Your task to perform on an android device: open wifi settings Image 0: 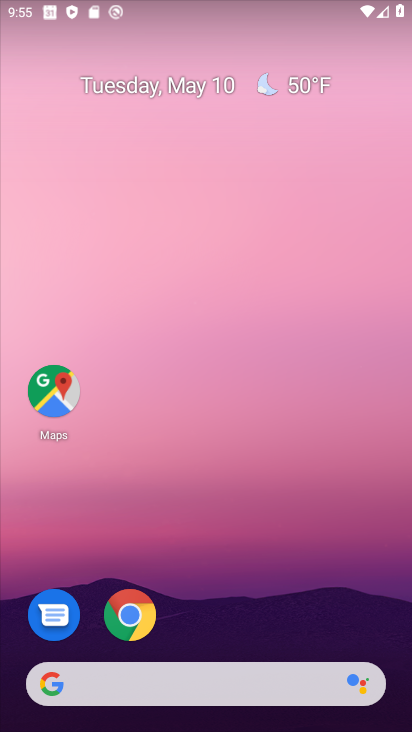
Step 0: press home button
Your task to perform on an android device: open wifi settings Image 1: 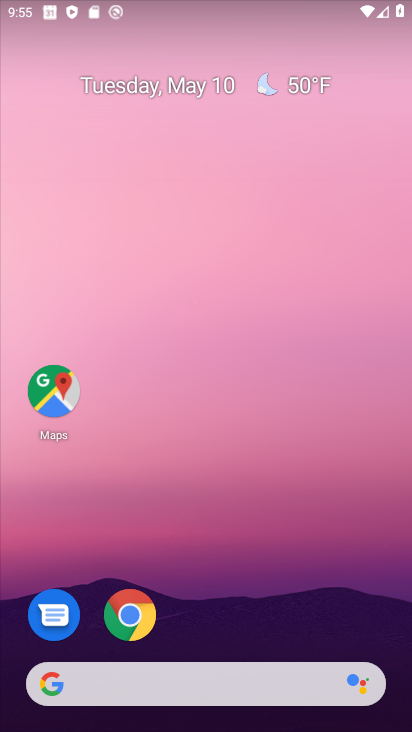
Step 1: drag from (224, 638) to (261, 208)
Your task to perform on an android device: open wifi settings Image 2: 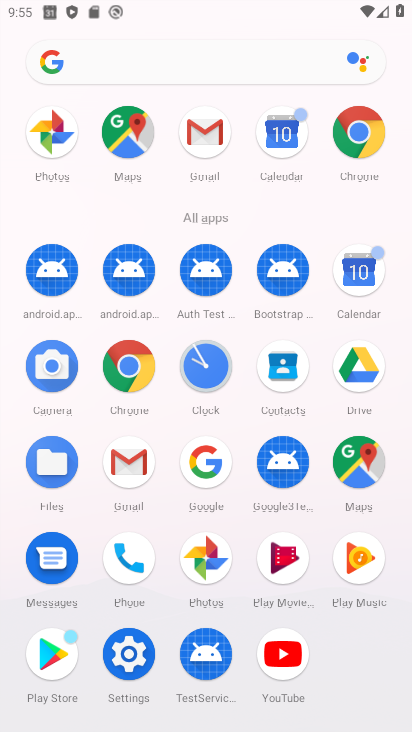
Step 2: click (129, 640)
Your task to perform on an android device: open wifi settings Image 3: 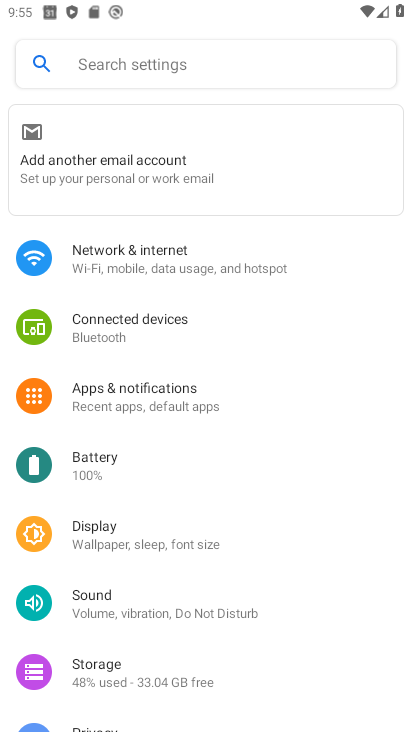
Step 3: click (145, 250)
Your task to perform on an android device: open wifi settings Image 4: 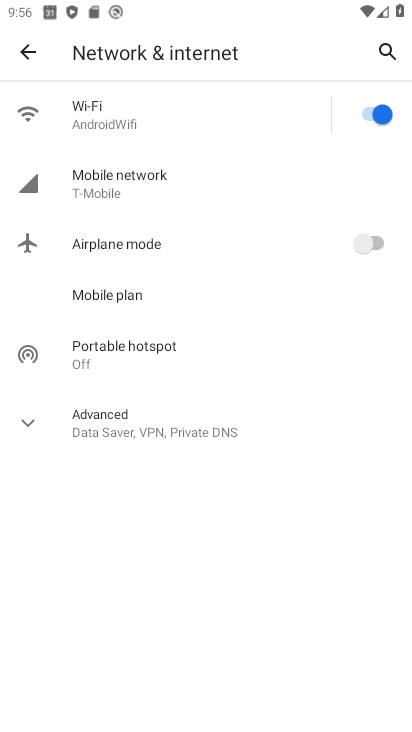
Step 4: click (31, 420)
Your task to perform on an android device: open wifi settings Image 5: 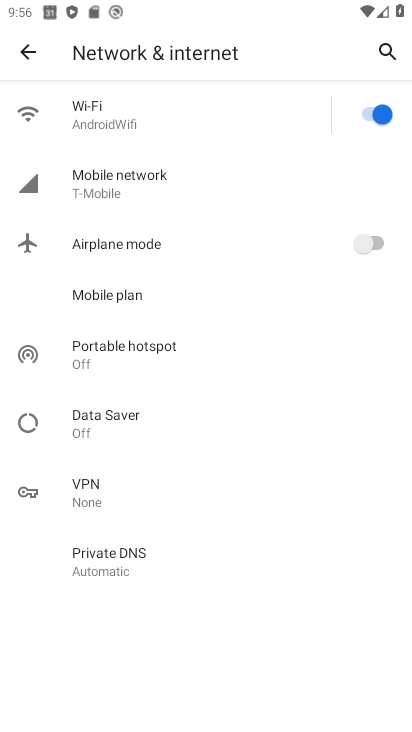
Step 5: click (118, 104)
Your task to perform on an android device: open wifi settings Image 6: 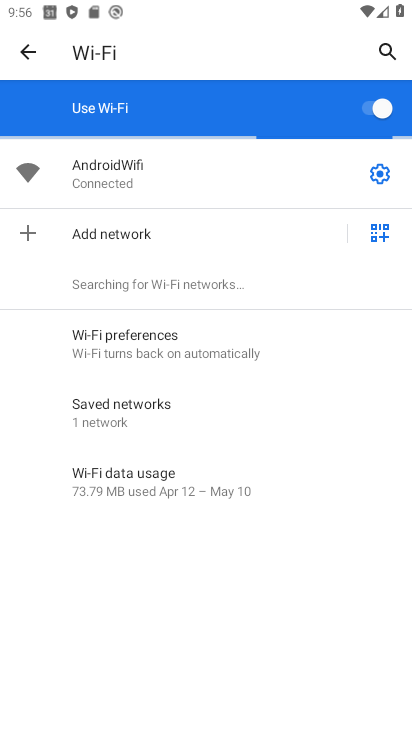
Step 6: task complete